Your task to perform on an android device: Open my contact list Image 0: 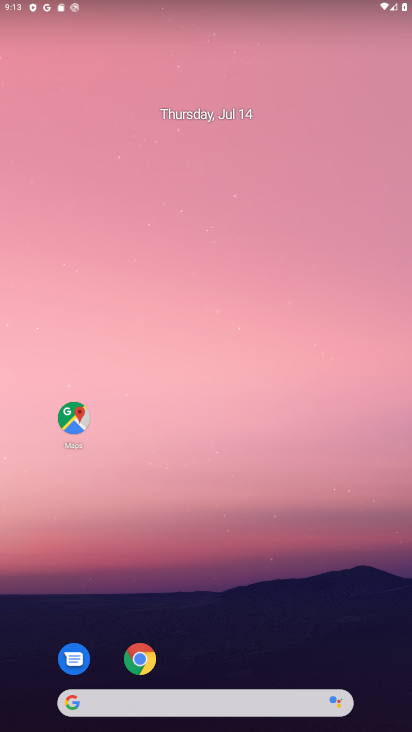
Step 0: drag from (383, 652) to (298, 76)
Your task to perform on an android device: Open my contact list Image 1: 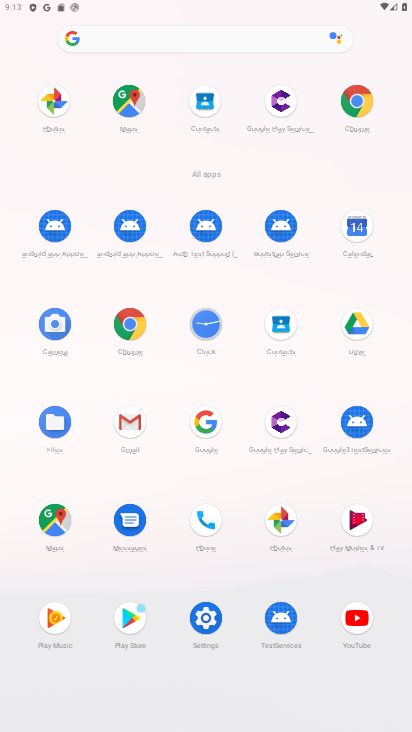
Step 1: click (278, 319)
Your task to perform on an android device: Open my contact list Image 2: 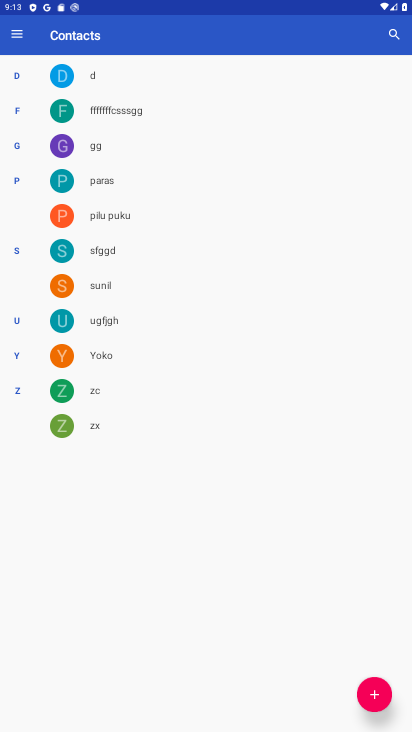
Step 2: task complete